Your task to perform on an android device: Open calendar and show me the fourth week of next month Image 0: 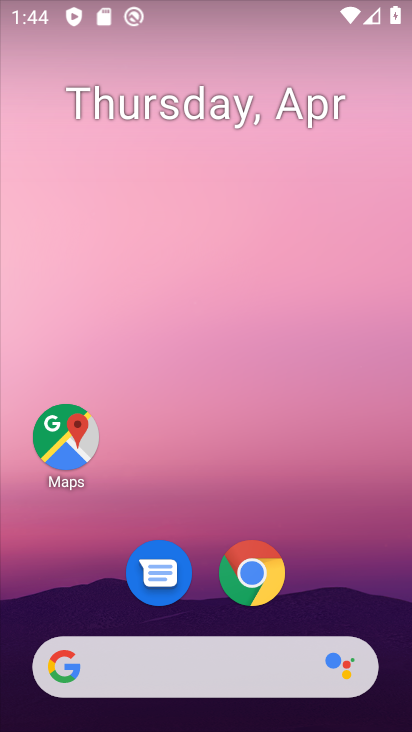
Step 0: drag from (345, 590) to (241, 50)
Your task to perform on an android device: Open calendar and show me the fourth week of next month Image 1: 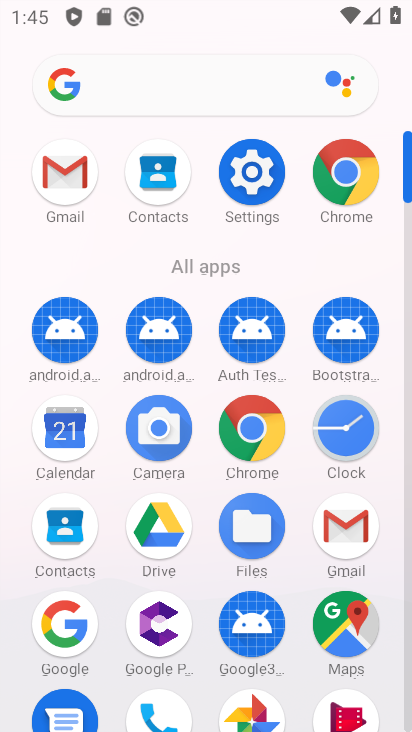
Step 1: click (56, 413)
Your task to perform on an android device: Open calendar and show me the fourth week of next month Image 2: 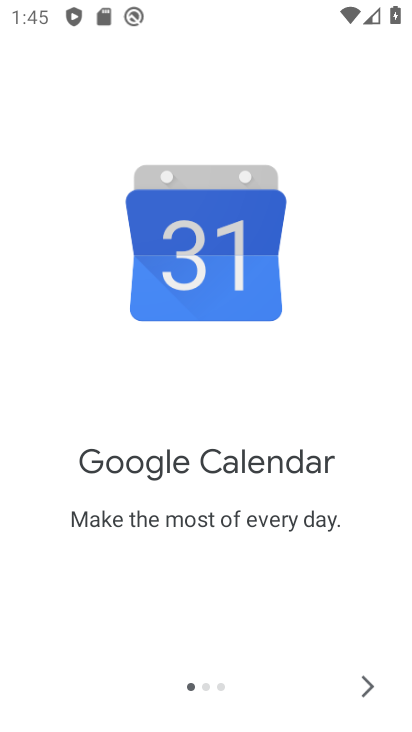
Step 2: click (368, 684)
Your task to perform on an android device: Open calendar and show me the fourth week of next month Image 3: 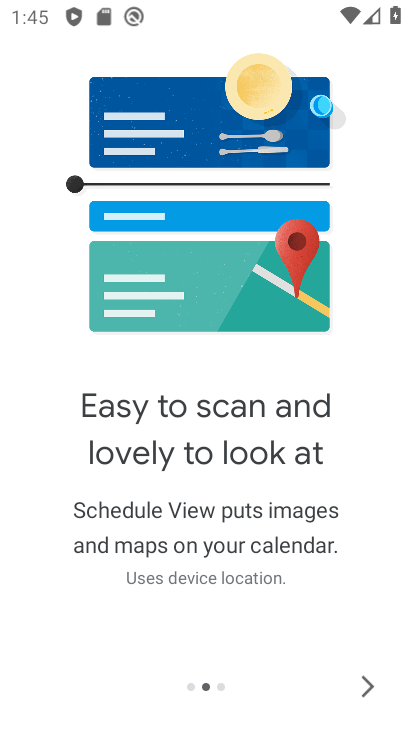
Step 3: click (368, 684)
Your task to perform on an android device: Open calendar and show me the fourth week of next month Image 4: 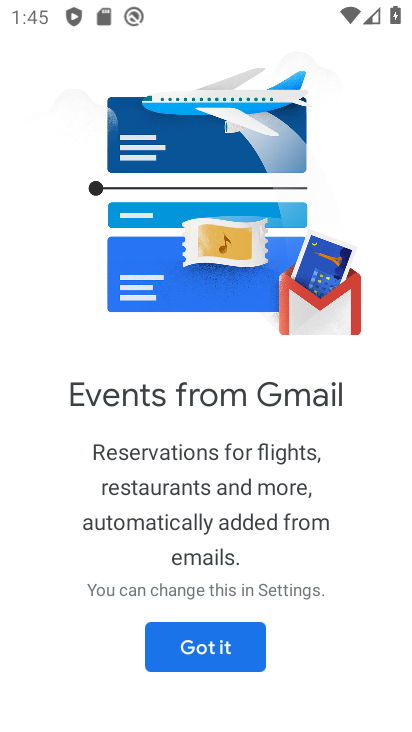
Step 4: click (248, 645)
Your task to perform on an android device: Open calendar and show me the fourth week of next month Image 5: 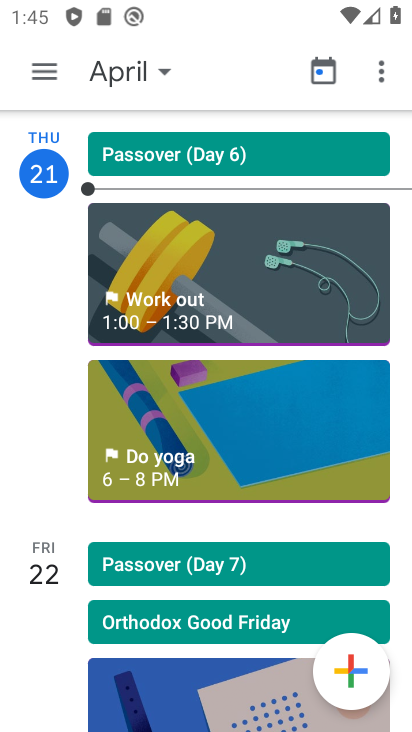
Step 5: click (121, 84)
Your task to perform on an android device: Open calendar and show me the fourth week of next month Image 6: 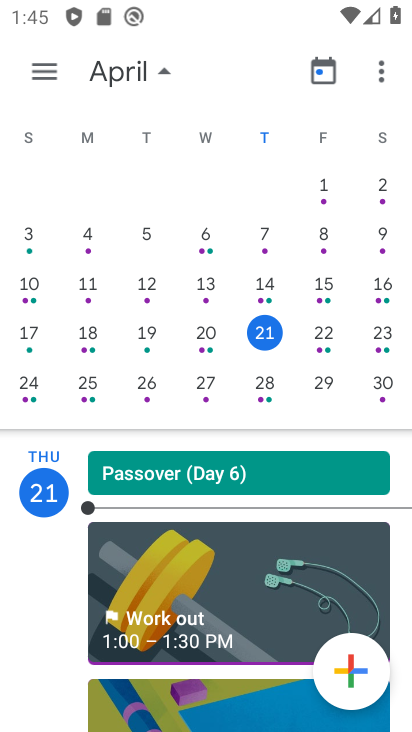
Step 6: drag from (376, 321) to (2, 266)
Your task to perform on an android device: Open calendar and show me the fourth week of next month Image 7: 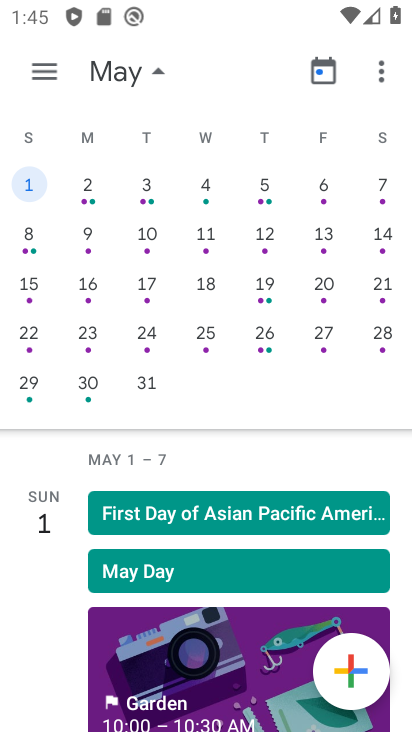
Step 7: click (266, 344)
Your task to perform on an android device: Open calendar and show me the fourth week of next month Image 8: 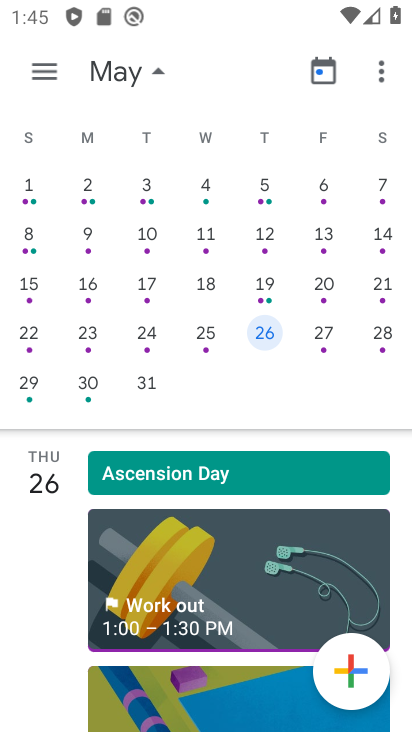
Step 8: task complete